Your task to perform on an android device: check android version Image 0: 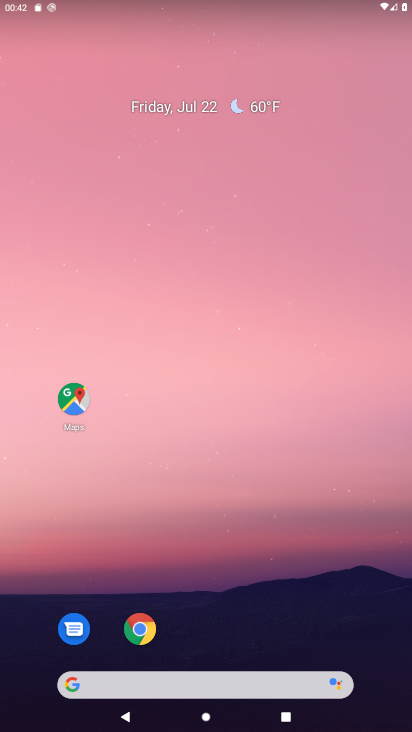
Step 0: drag from (243, 669) to (245, 312)
Your task to perform on an android device: check android version Image 1: 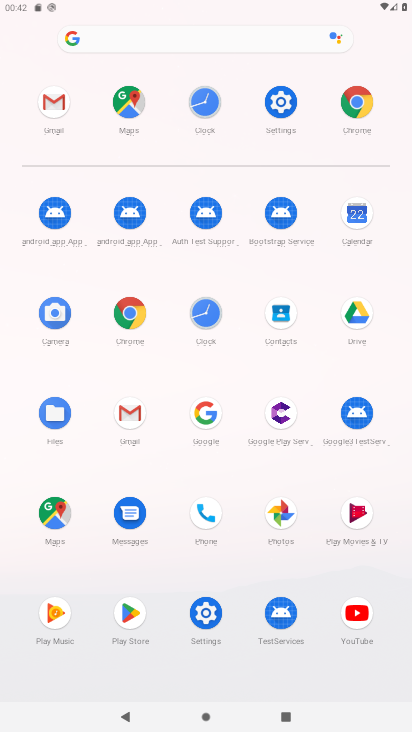
Step 1: click (270, 90)
Your task to perform on an android device: check android version Image 2: 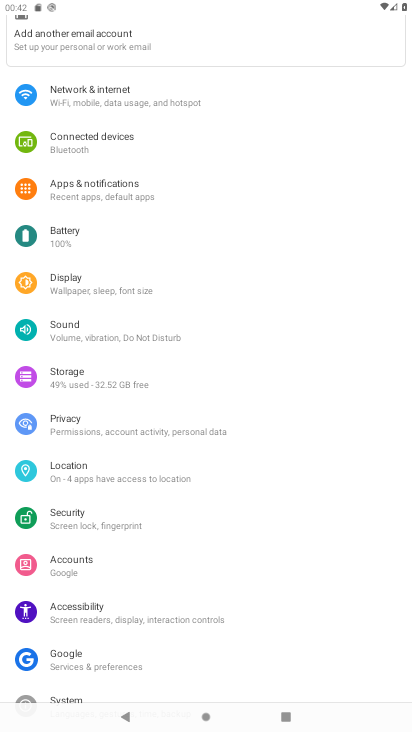
Step 2: drag from (137, 674) to (130, 262)
Your task to perform on an android device: check android version Image 3: 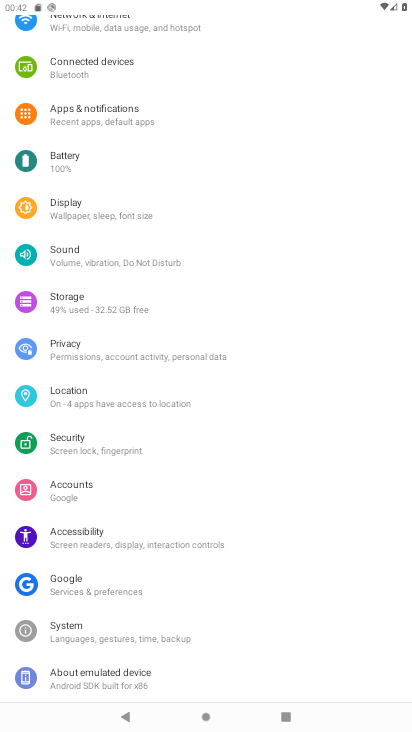
Step 3: click (102, 678)
Your task to perform on an android device: check android version Image 4: 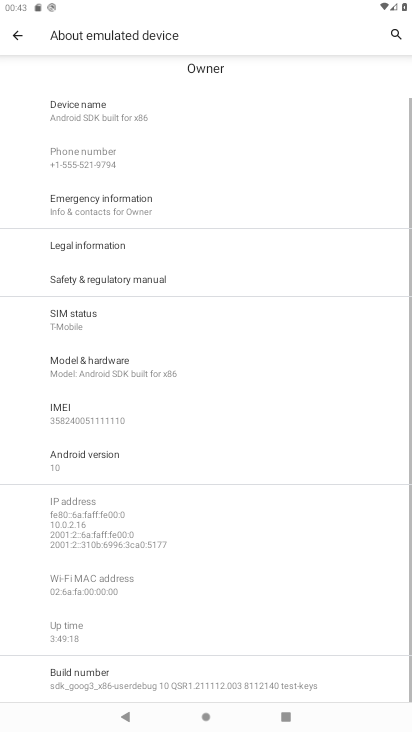
Step 4: click (106, 460)
Your task to perform on an android device: check android version Image 5: 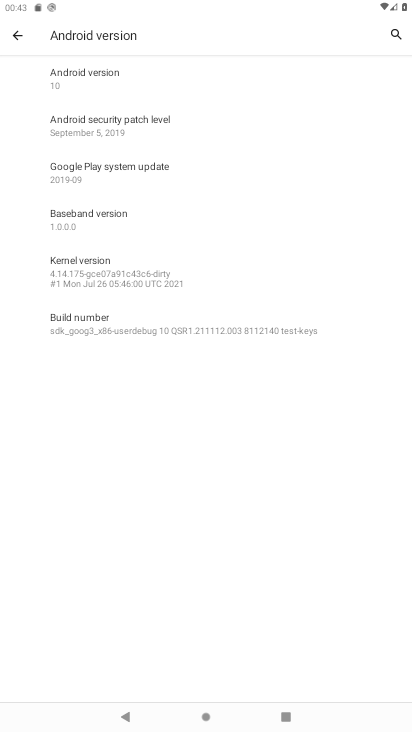
Step 5: task complete